Your task to perform on an android device: Is it going to rain tomorrow? Image 0: 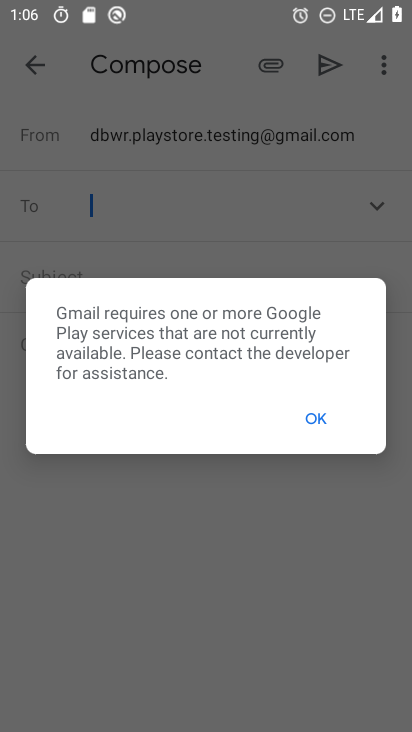
Step 0: press home button
Your task to perform on an android device: Is it going to rain tomorrow? Image 1: 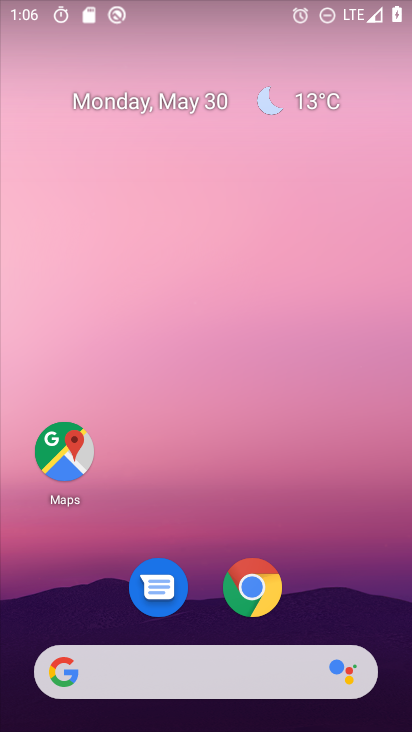
Step 1: click (306, 101)
Your task to perform on an android device: Is it going to rain tomorrow? Image 2: 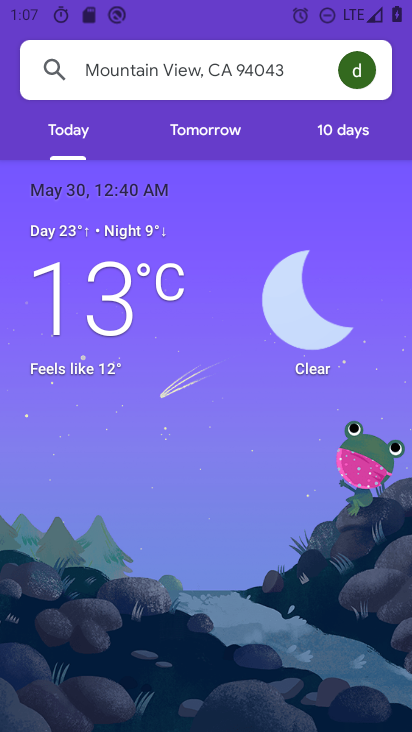
Step 2: click (231, 169)
Your task to perform on an android device: Is it going to rain tomorrow? Image 3: 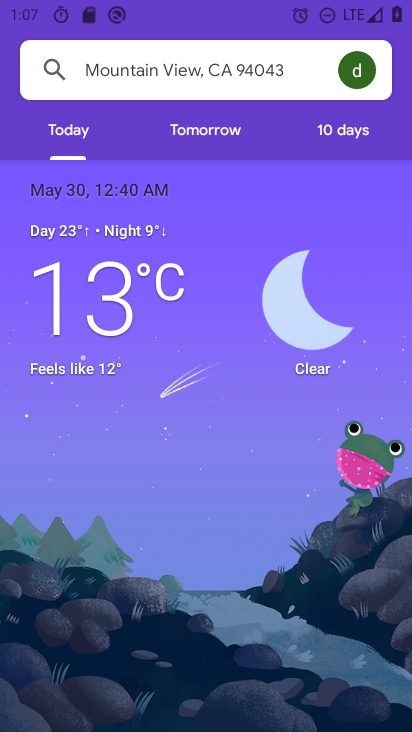
Step 3: click (229, 148)
Your task to perform on an android device: Is it going to rain tomorrow? Image 4: 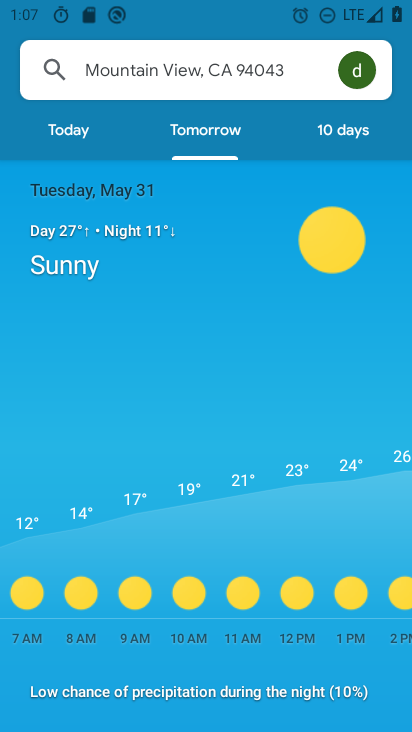
Step 4: task complete